Your task to perform on an android device: turn notification dots on Image 0: 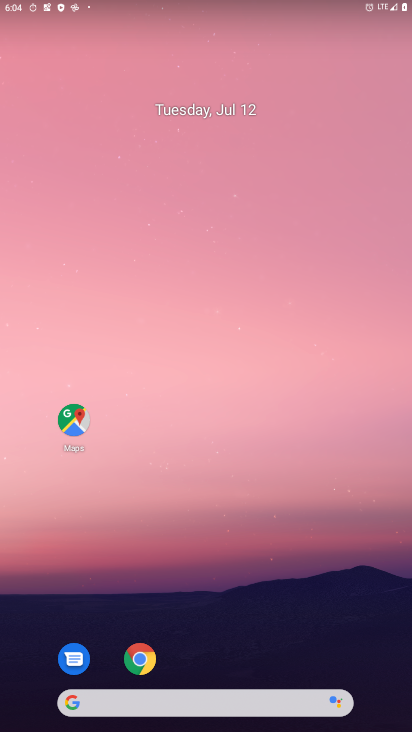
Step 0: drag from (208, 509) to (243, 4)
Your task to perform on an android device: turn notification dots on Image 1: 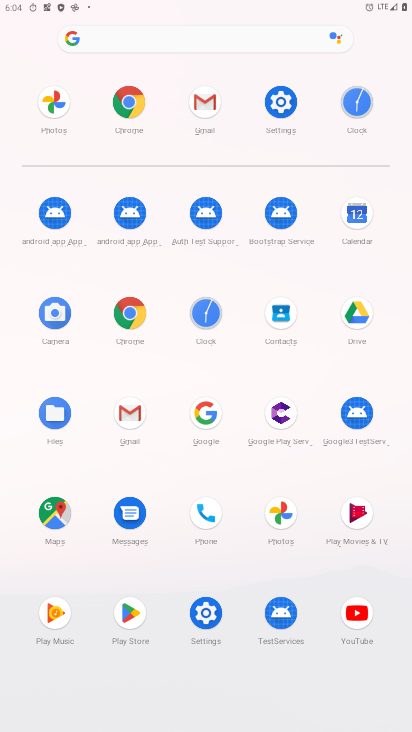
Step 1: click (277, 110)
Your task to perform on an android device: turn notification dots on Image 2: 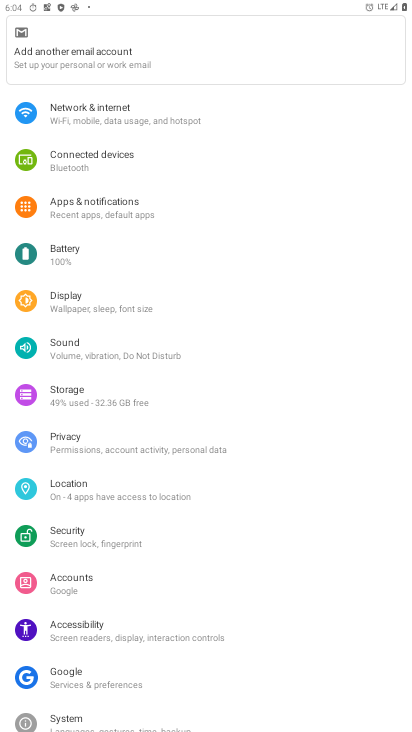
Step 2: click (118, 207)
Your task to perform on an android device: turn notification dots on Image 3: 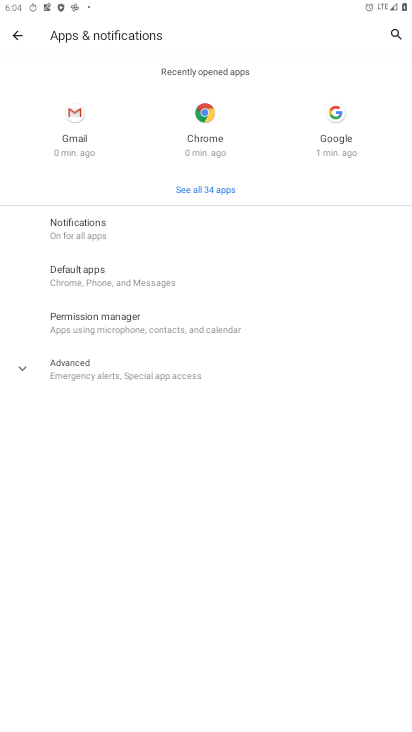
Step 3: click (86, 227)
Your task to perform on an android device: turn notification dots on Image 4: 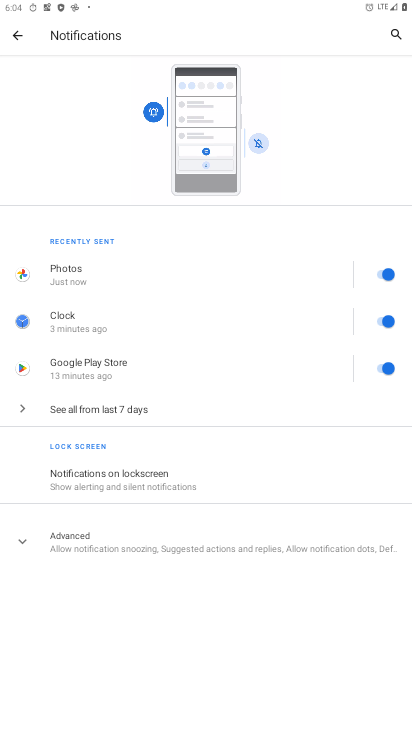
Step 4: click (101, 546)
Your task to perform on an android device: turn notification dots on Image 5: 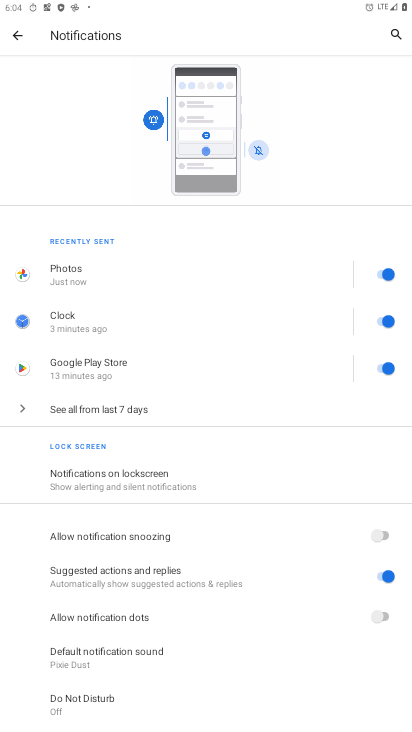
Step 5: click (139, 612)
Your task to perform on an android device: turn notification dots on Image 6: 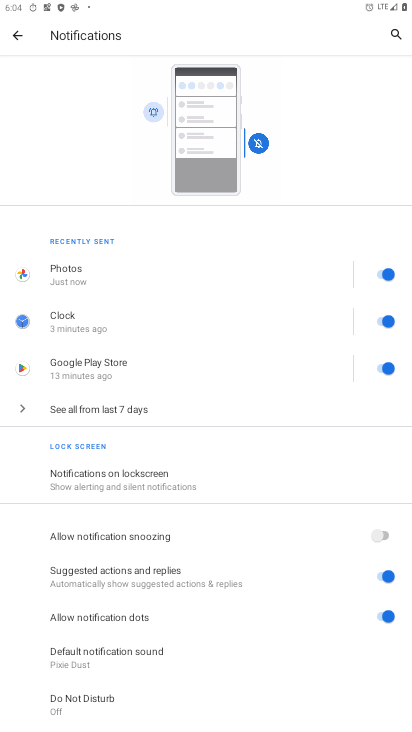
Step 6: click (139, 612)
Your task to perform on an android device: turn notification dots on Image 7: 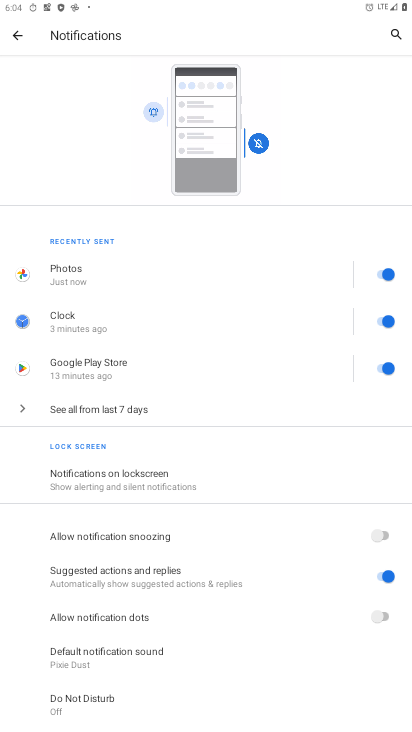
Step 7: task complete